Your task to perform on an android device: open app "Microsoft Outlook" Image 0: 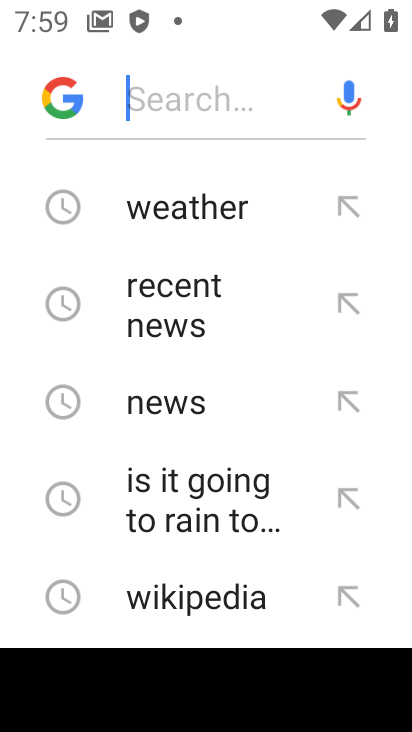
Step 0: click (406, 299)
Your task to perform on an android device: open app "Microsoft Outlook" Image 1: 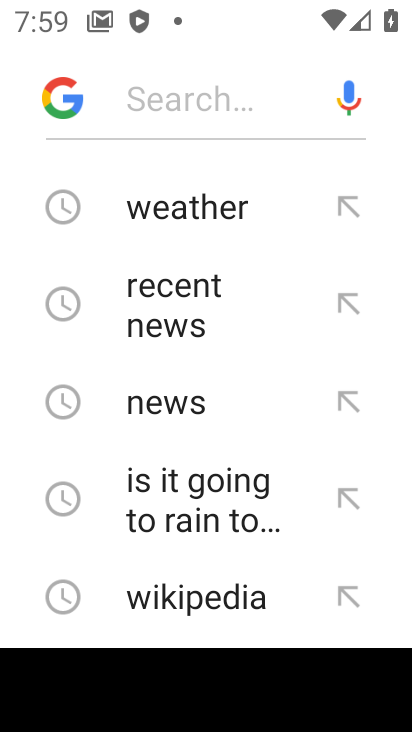
Step 1: press home button
Your task to perform on an android device: open app "Microsoft Outlook" Image 2: 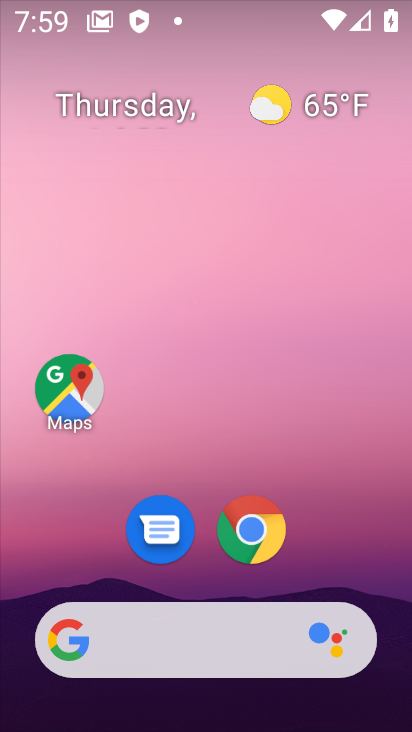
Step 2: drag from (228, 669) to (230, 50)
Your task to perform on an android device: open app "Microsoft Outlook" Image 3: 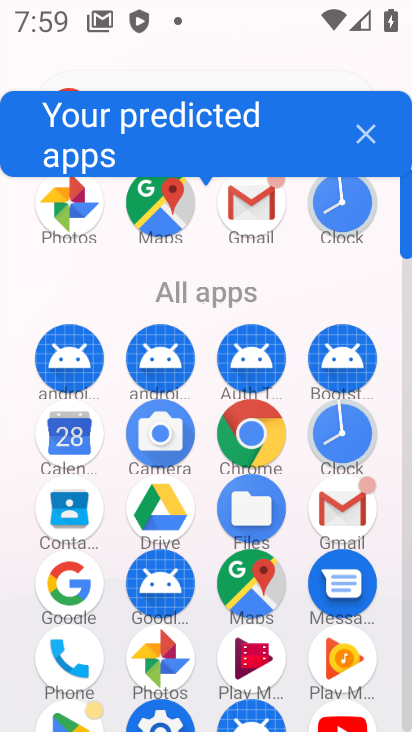
Step 3: drag from (296, 647) to (296, 280)
Your task to perform on an android device: open app "Microsoft Outlook" Image 4: 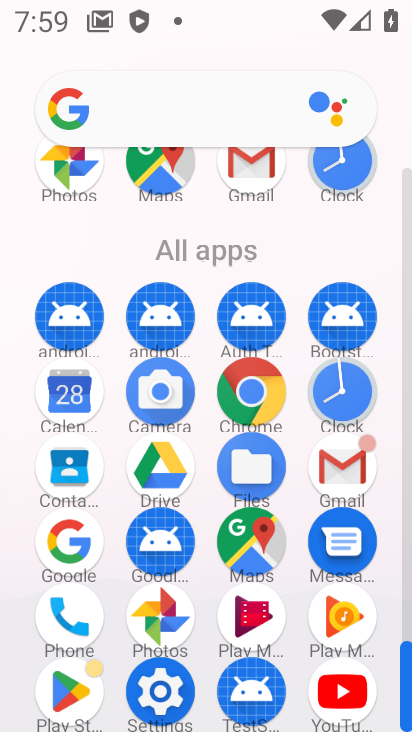
Step 4: click (66, 684)
Your task to perform on an android device: open app "Microsoft Outlook" Image 5: 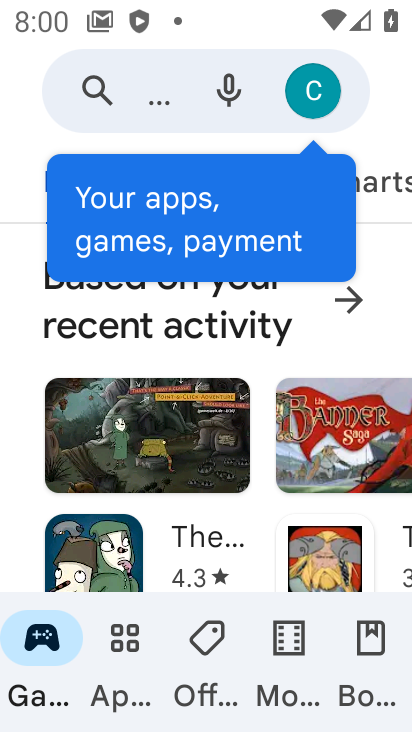
Step 5: click (154, 90)
Your task to perform on an android device: open app "Microsoft Outlook" Image 6: 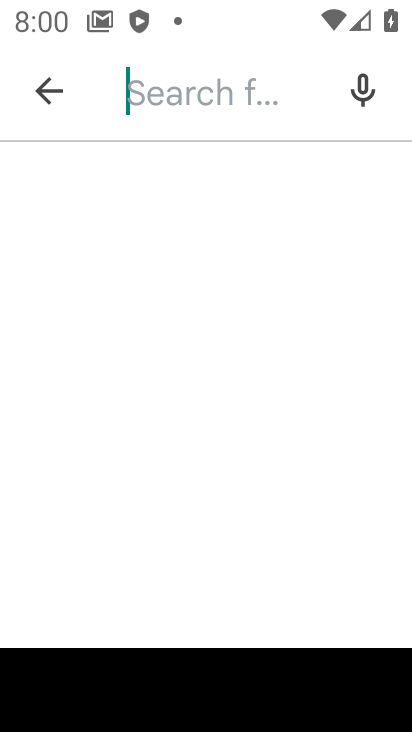
Step 6: type "Microsoft Outlook"
Your task to perform on an android device: open app "Microsoft Outlook" Image 7: 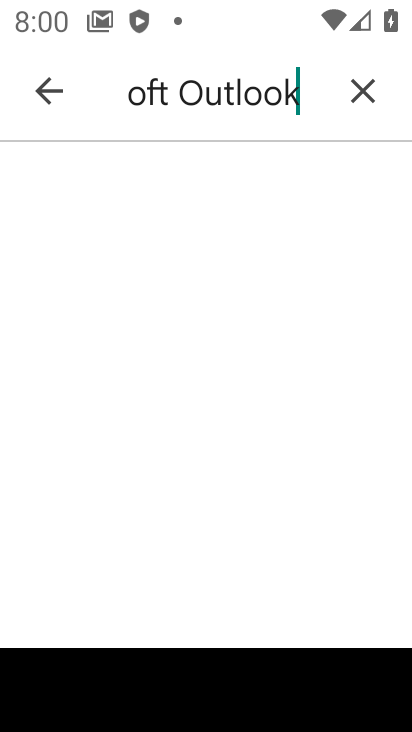
Step 7: type ""
Your task to perform on an android device: open app "Microsoft Outlook" Image 8: 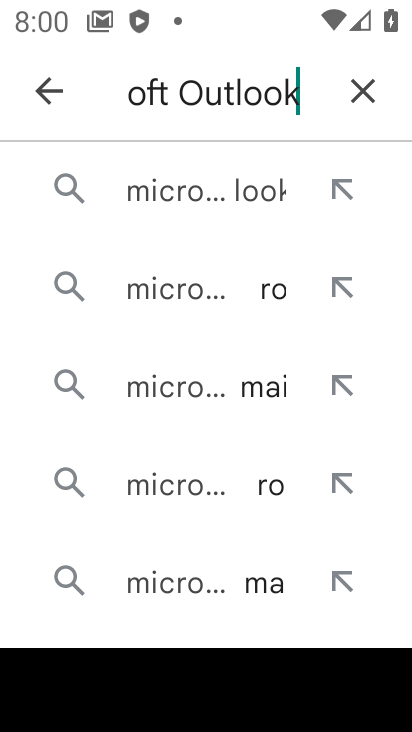
Step 8: click (155, 187)
Your task to perform on an android device: open app "Microsoft Outlook" Image 9: 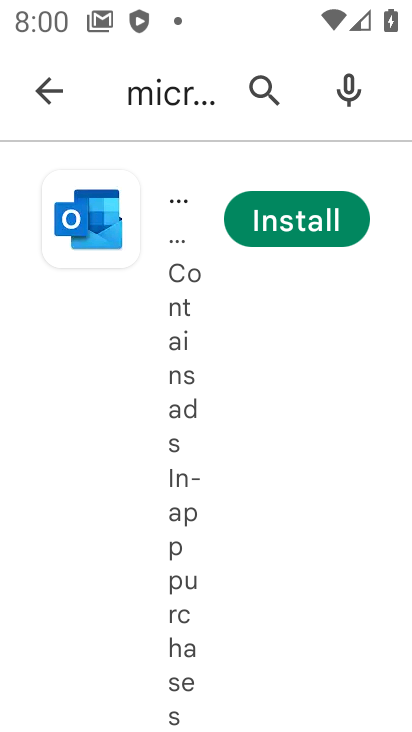
Step 9: task complete